Your task to perform on an android device: turn smart compose on in the gmail app Image 0: 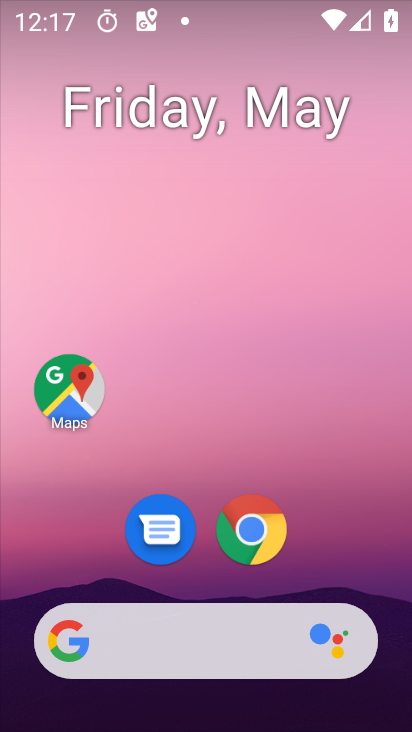
Step 0: drag from (272, 550) to (335, 126)
Your task to perform on an android device: turn smart compose on in the gmail app Image 1: 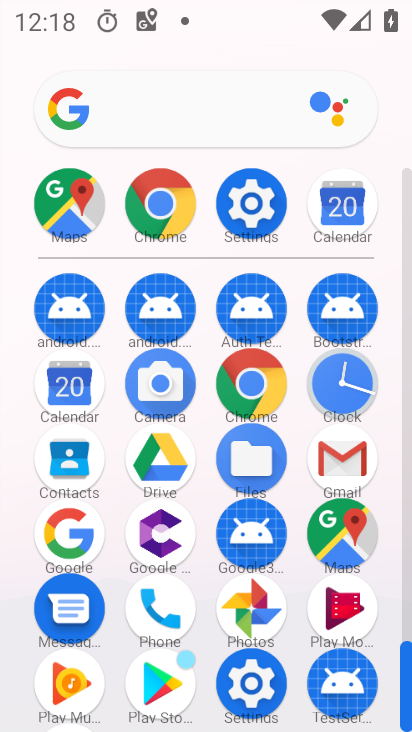
Step 1: click (352, 460)
Your task to perform on an android device: turn smart compose on in the gmail app Image 2: 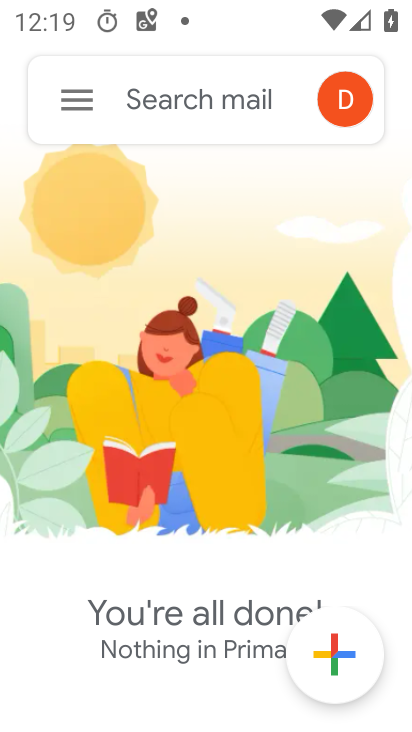
Step 2: click (73, 100)
Your task to perform on an android device: turn smart compose on in the gmail app Image 3: 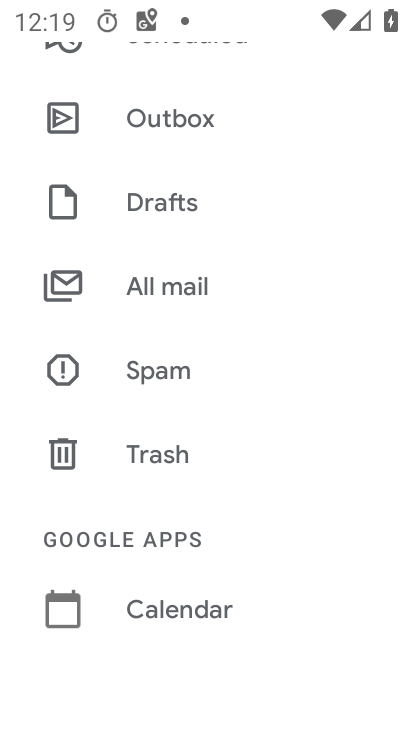
Step 3: drag from (148, 558) to (244, 131)
Your task to perform on an android device: turn smart compose on in the gmail app Image 4: 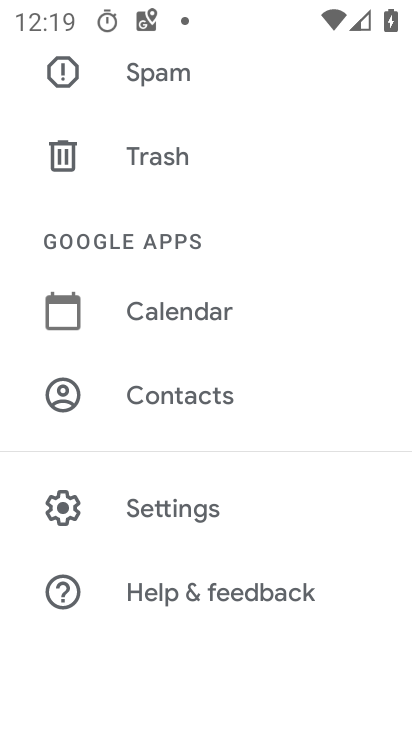
Step 4: click (157, 505)
Your task to perform on an android device: turn smart compose on in the gmail app Image 5: 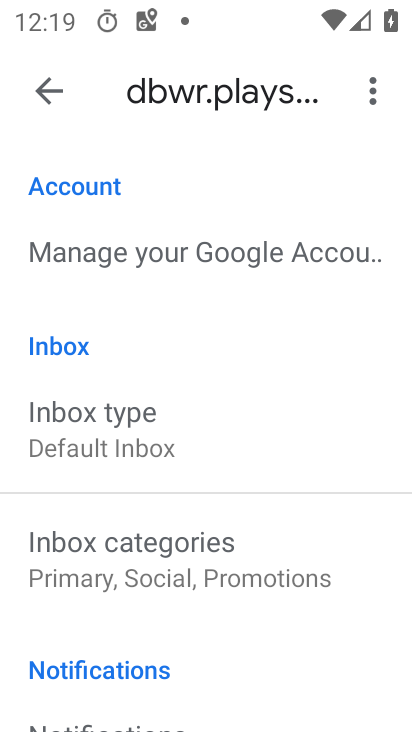
Step 5: task complete